Your task to perform on an android device: Open notification settings Image 0: 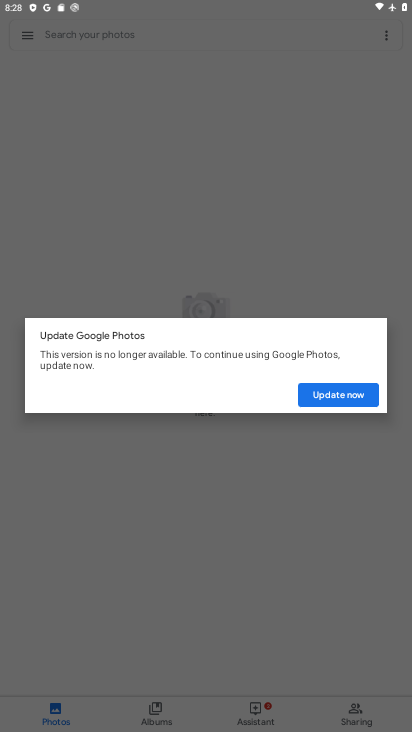
Step 0: press back button
Your task to perform on an android device: Open notification settings Image 1: 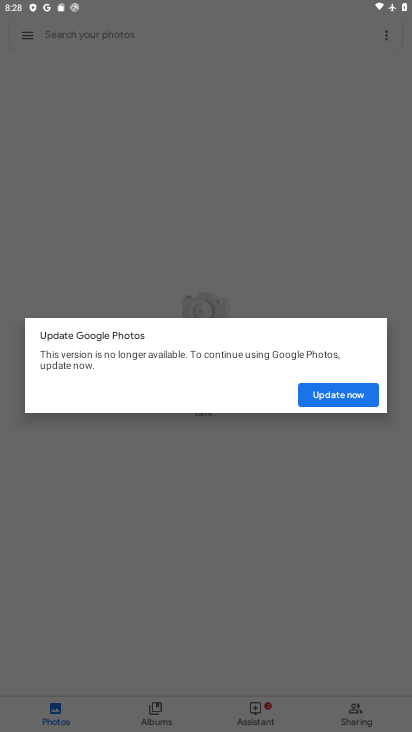
Step 1: press back button
Your task to perform on an android device: Open notification settings Image 2: 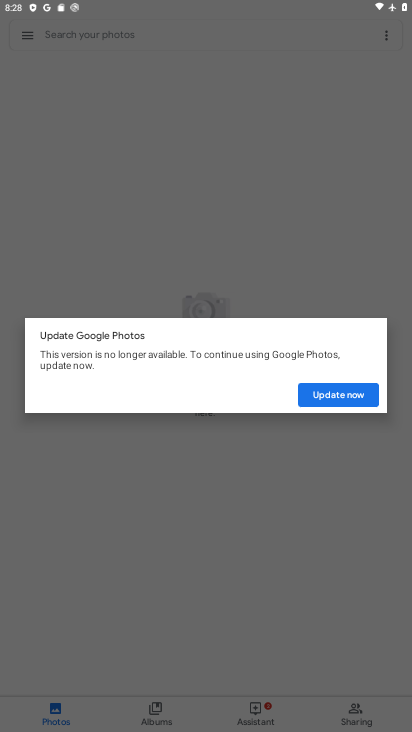
Step 2: press back button
Your task to perform on an android device: Open notification settings Image 3: 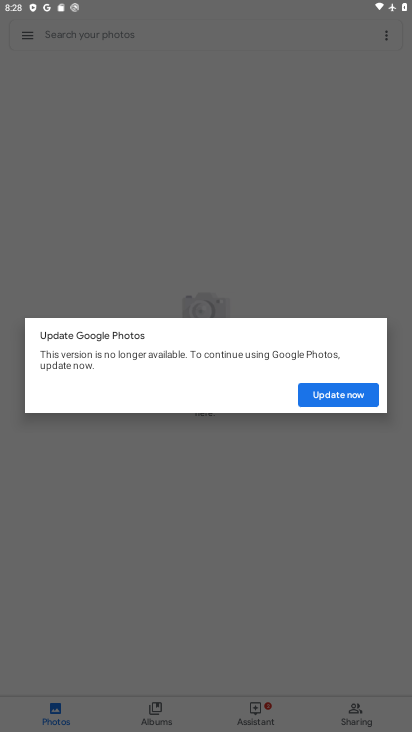
Step 3: click (113, 207)
Your task to perform on an android device: Open notification settings Image 4: 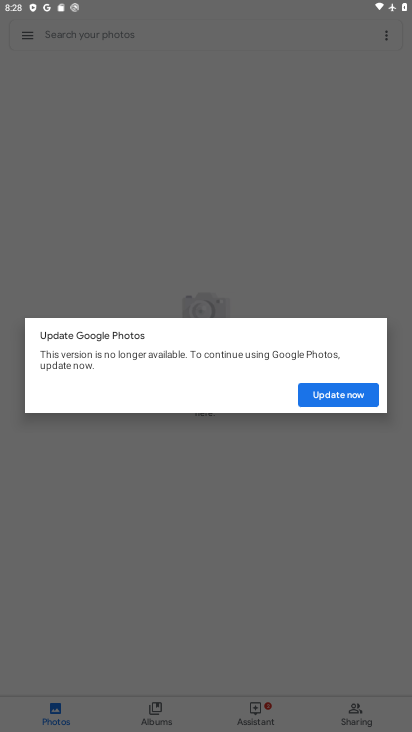
Step 4: click (115, 208)
Your task to perform on an android device: Open notification settings Image 5: 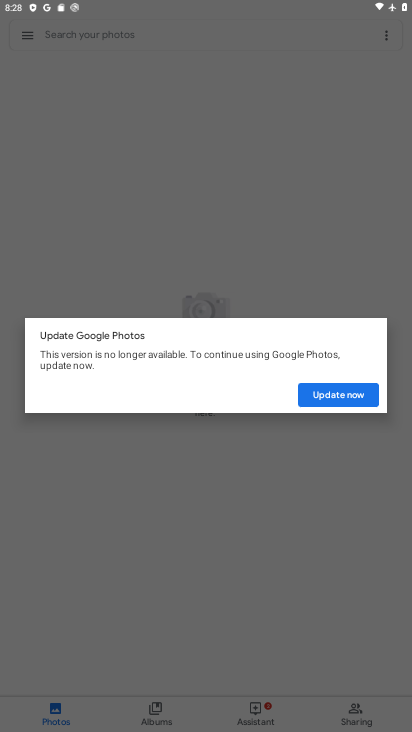
Step 5: click (125, 221)
Your task to perform on an android device: Open notification settings Image 6: 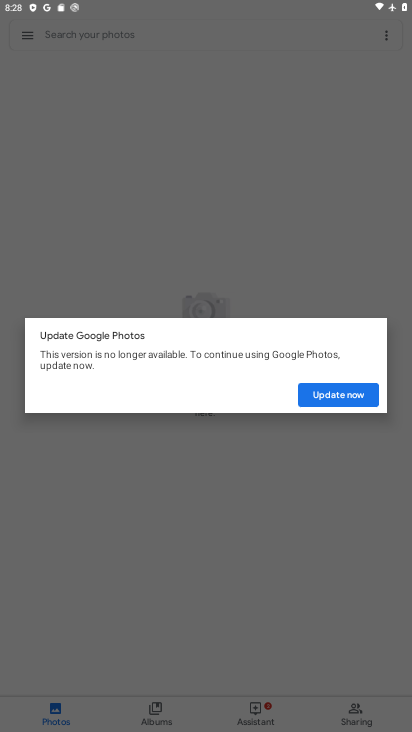
Step 6: click (131, 225)
Your task to perform on an android device: Open notification settings Image 7: 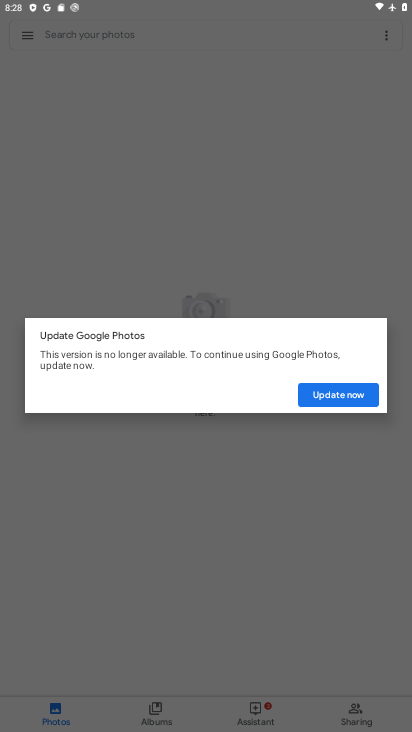
Step 7: press back button
Your task to perform on an android device: Open notification settings Image 8: 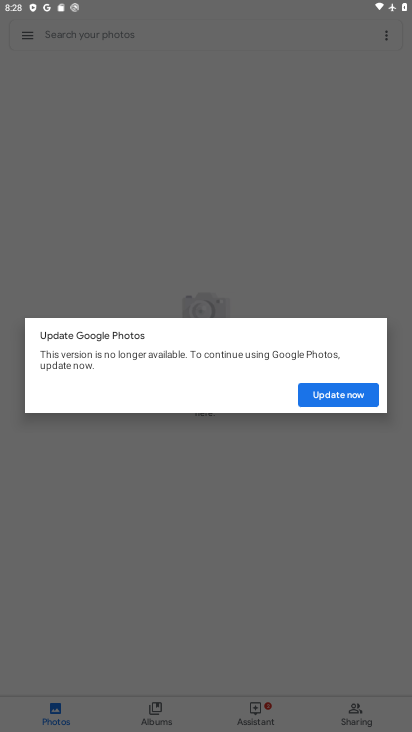
Step 8: press back button
Your task to perform on an android device: Open notification settings Image 9: 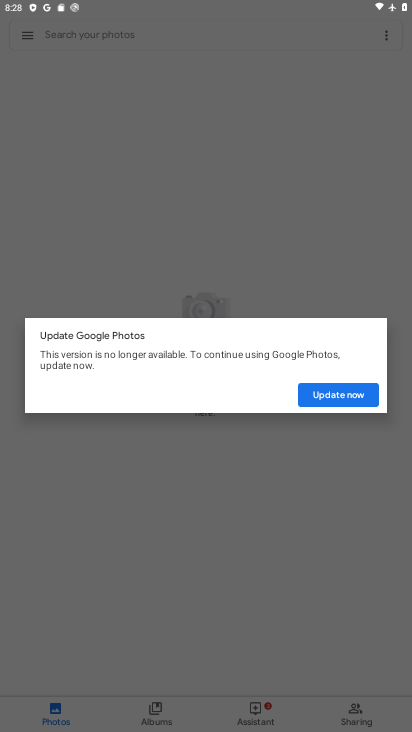
Step 9: press back button
Your task to perform on an android device: Open notification settings Image 10: 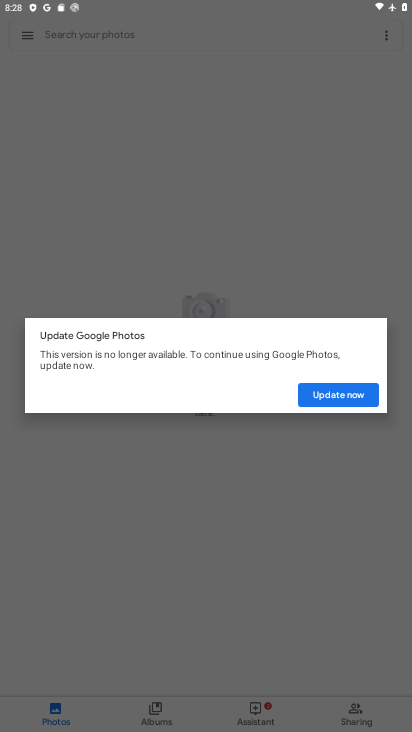
Step 10: click (106, 255)
Your task to perform on an android device: Open notification settings Image 11: 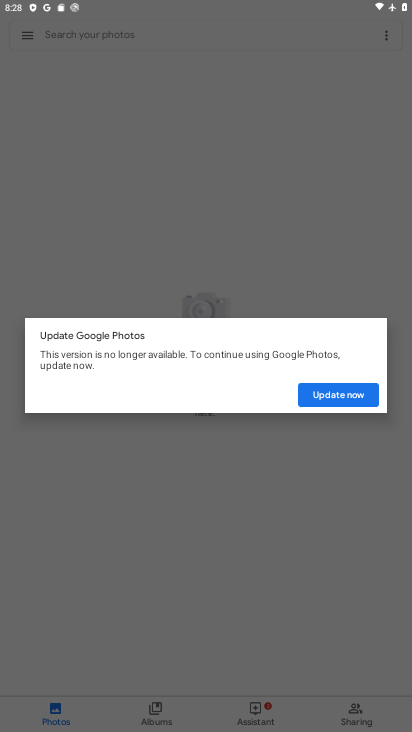
Step 11: click (205, 475)
Your task to perform on an android device: Open notification settings Image 12: 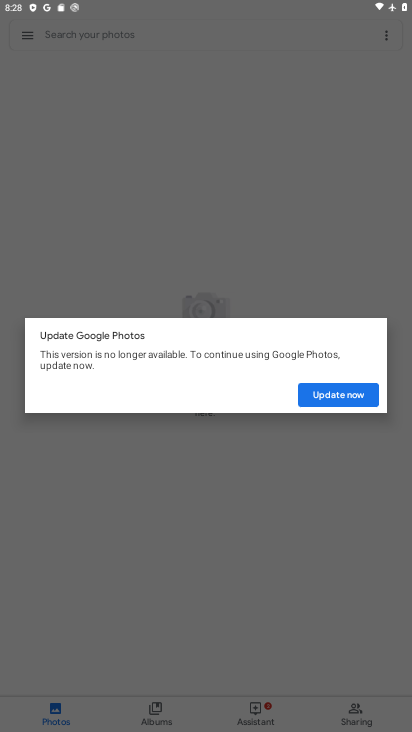
Step 12: click (209, 459)
Your task to perform on an android device: Open notification settings Image 13: 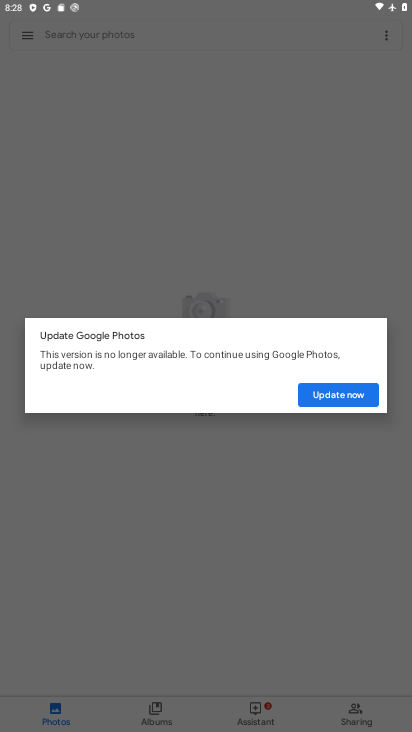
Step 13: press home button
Your task to perform on an android device: Open notification settings Image 14: 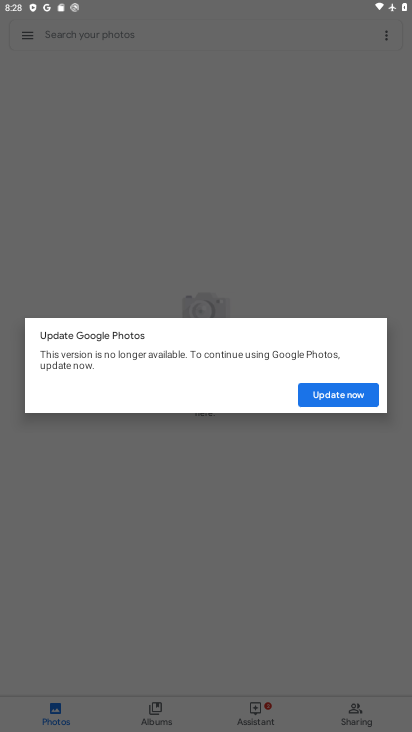
Step 14: press home button
Your task to perform on an android device: Open notification settings Image 15: 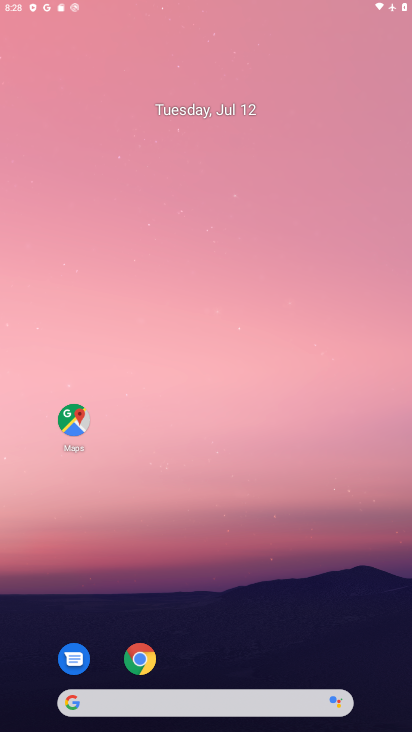
Step 15: press home button
Your task to perform on an android device: Open notification settings Image 16: 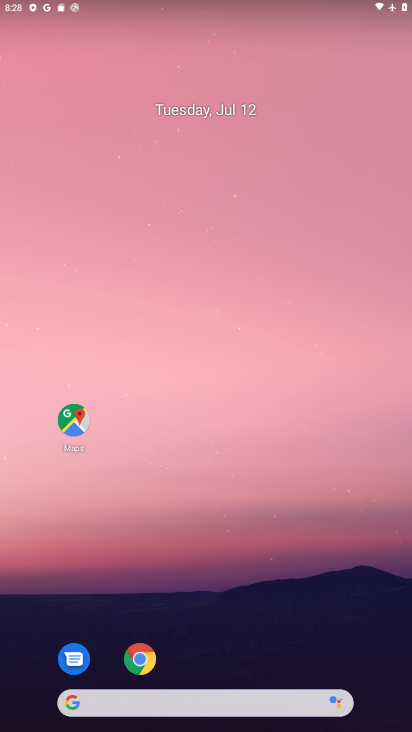
Step 16: press home button
Your task to perform on an android device: Open notification settings Image 17: 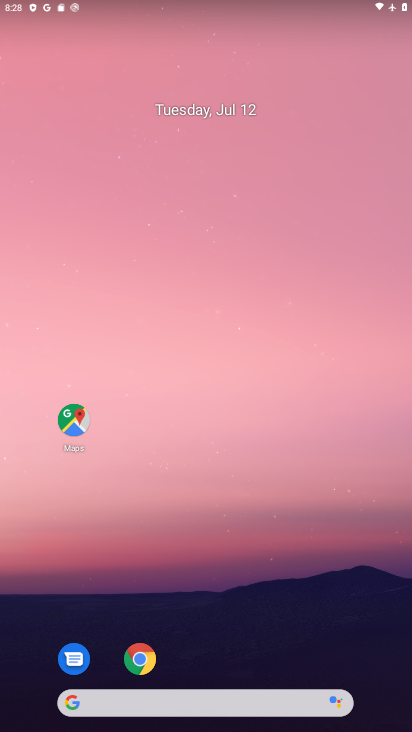
Step 17: drag from (195, 663) to (207, 33)
Your task to perform on an android device: Open notification settings Image 18: 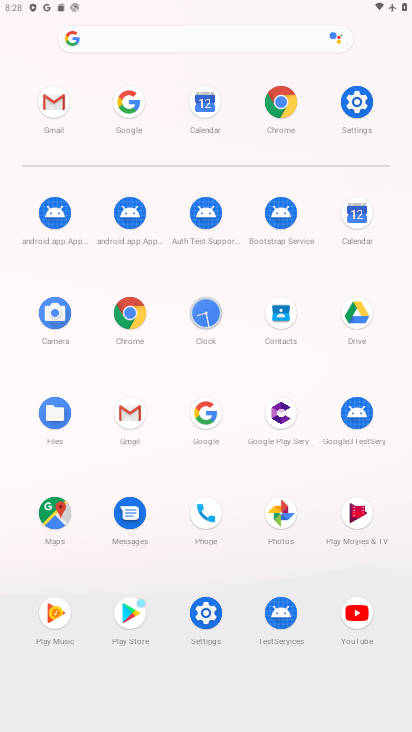
Step 18: click (197, 606)
Your task to perform on an android device: Open notification settings Image 19: 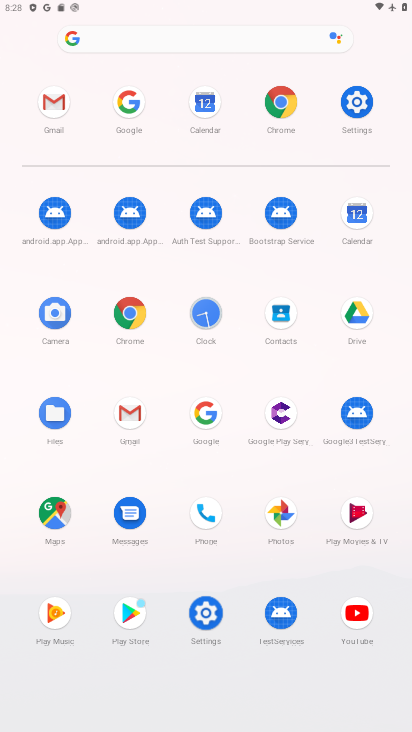
Step 19: click (218, 624)
Your task to perform on an android device: Open notification settings Image 20: 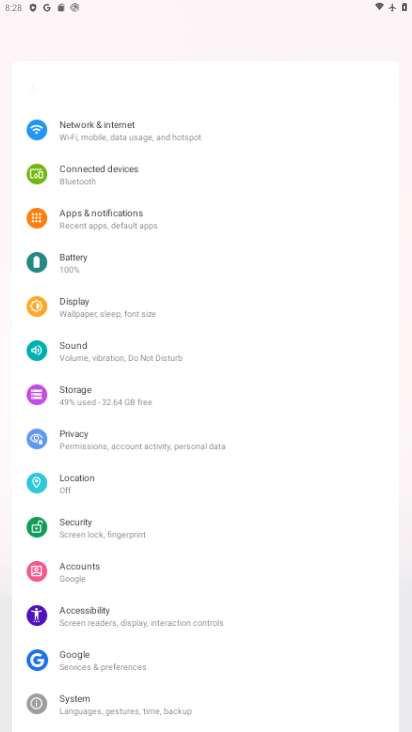
Step 20: click (215, 623)
Your task to perform on an android device: Open notification settings Image 21: 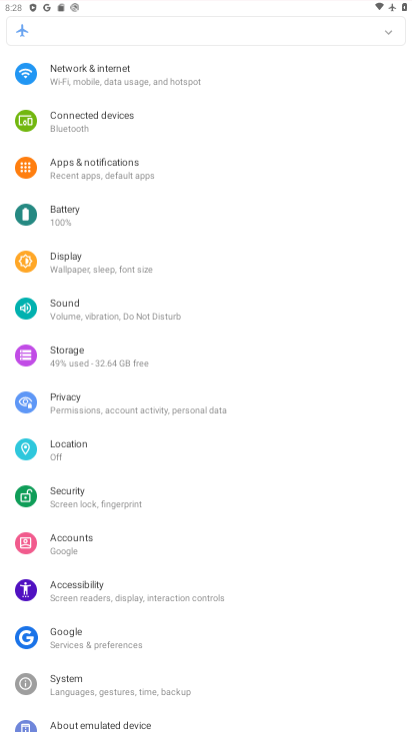
Step 21: click (216, 622)
Your task to perform on an android device: Open notification settings Image 22: 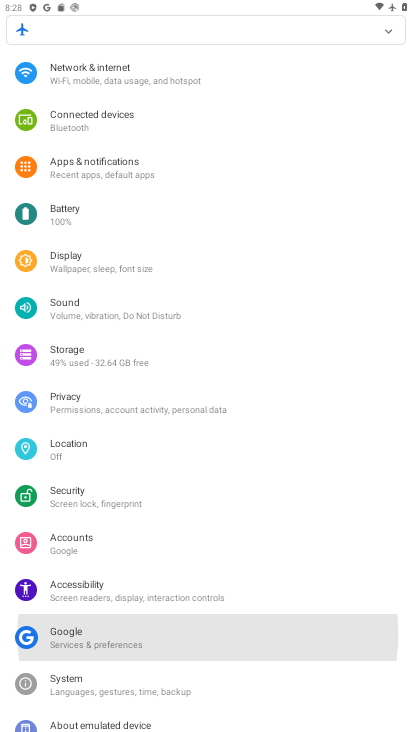
Step 22: click (217, 622)
Your task to perform on an android device: Open notification settings Image 23: 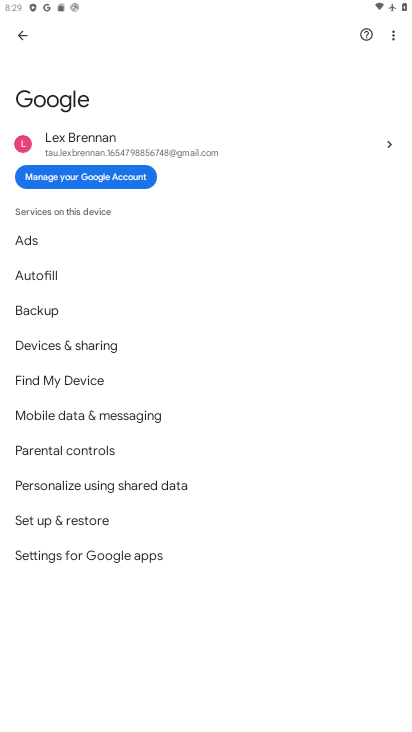
Step 23: click (15, 25)
Your task to perform on an android device: Open notification settings Image 24: 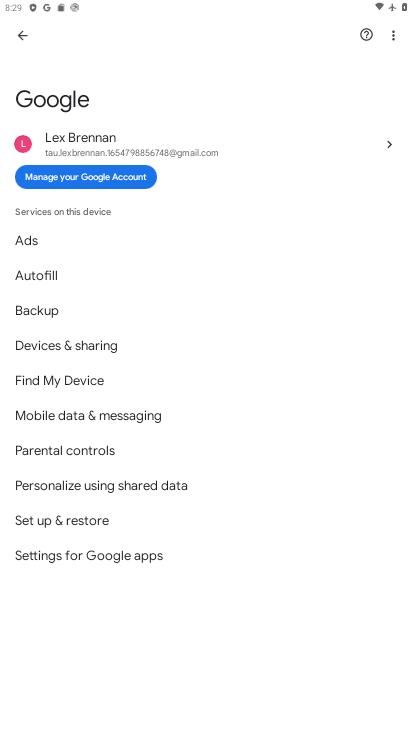
Step 24: click (20, 33)
Your task to perform on an android device: Open notification settings Image 25: 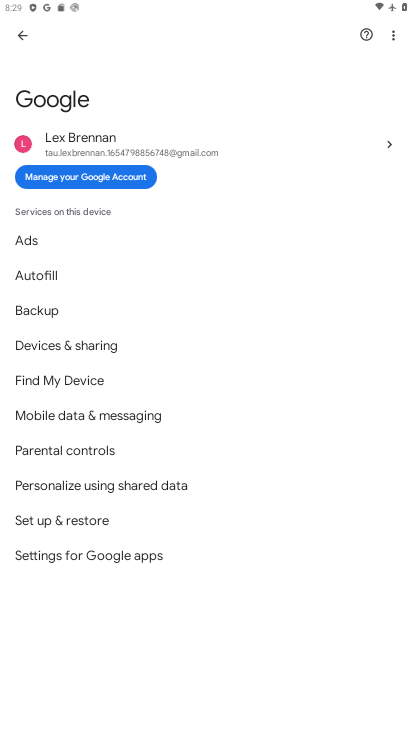
Step 25: click (26, 28)
Your task to perform on an android device: Open notification settings Image 26: 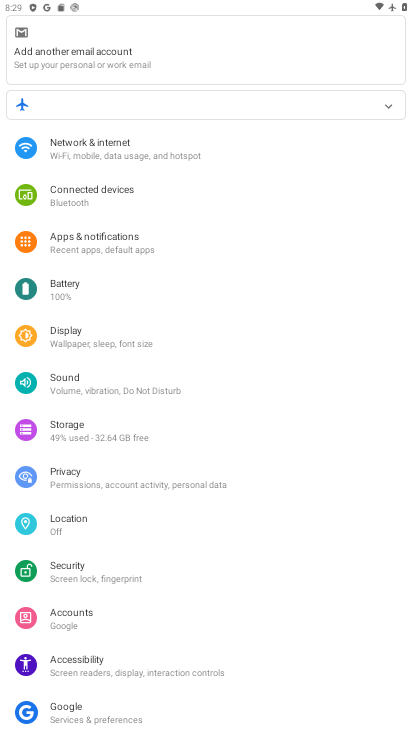
Step 26: click (86, 241)
Your task to perform on an android device: Open notification settings Image 27: 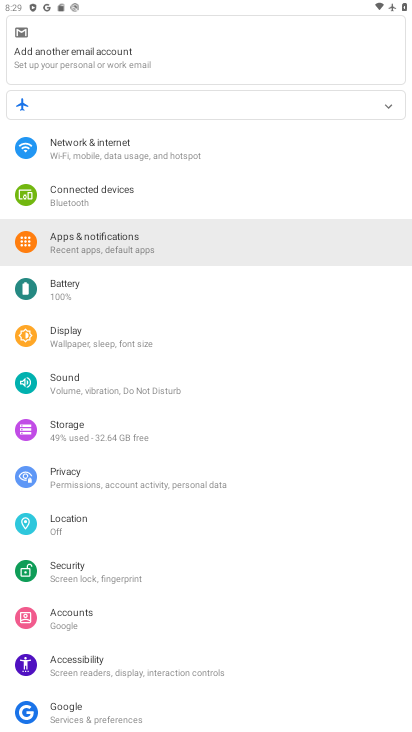
Step 27: click (86, 242)
Your task to perform on an android device: Open notification settings Image 28: 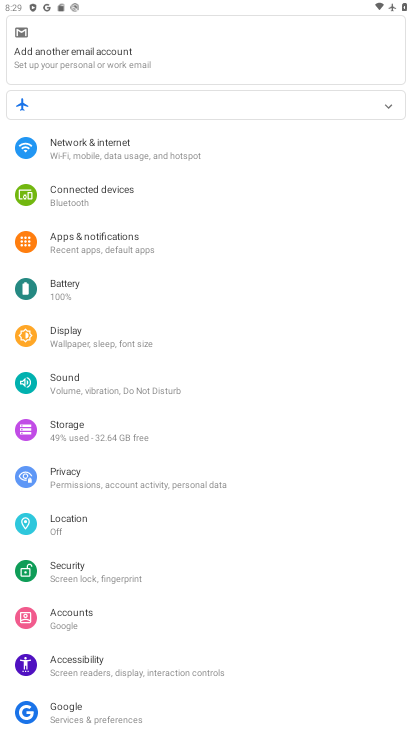
Step 28: click (86, 242)
Your task to perform on an android device: Open notification settings Image 29: 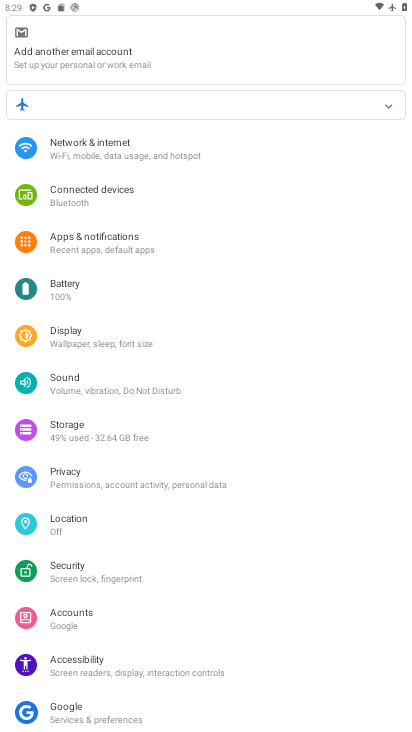
Step 29: click (86, 242)
Your task to perform on an android device: Open notification settings Image 30: 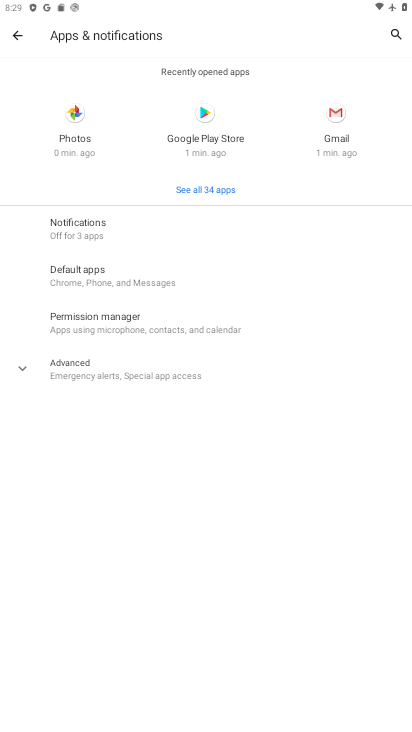
Step 30: click (58, 230)
Your task to perform on an android device: Open notification settings Image 31: 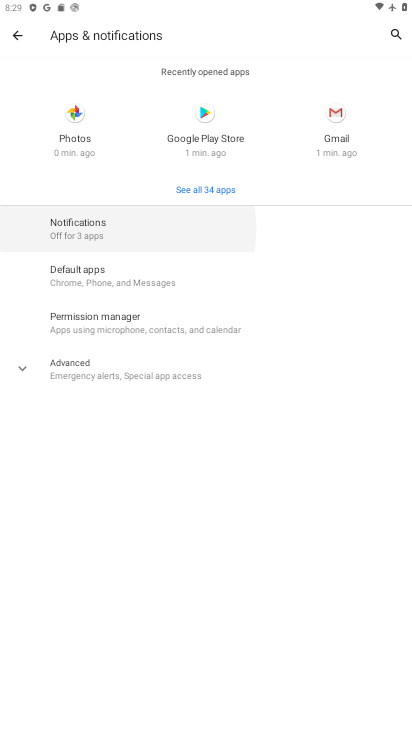
Step 31: click (58, 230)
Your task to perform on an android device: Open notification settings Image 32: 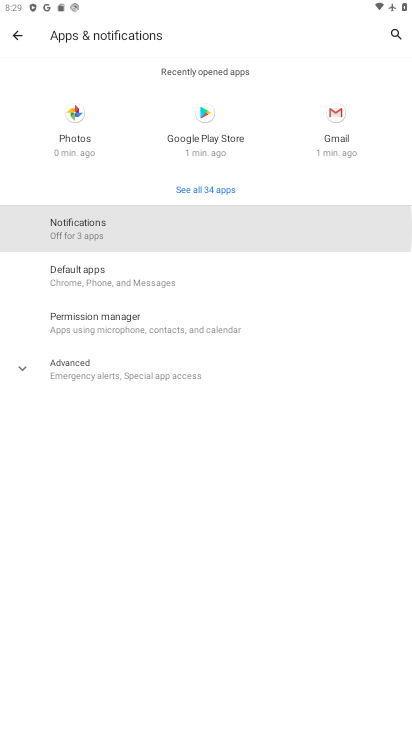
Step 32: click (58, 230)
Your task to perform on an android device: Open notification settings Image 33: 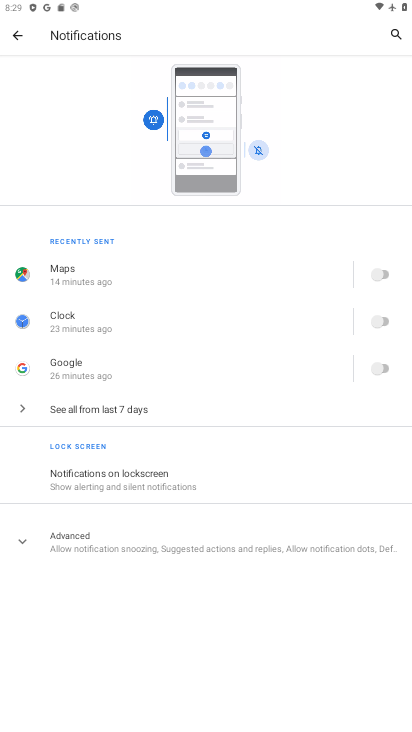
Step 33: click (105, 478)
Your task to perform on an android device: Open notification settings Image 34: 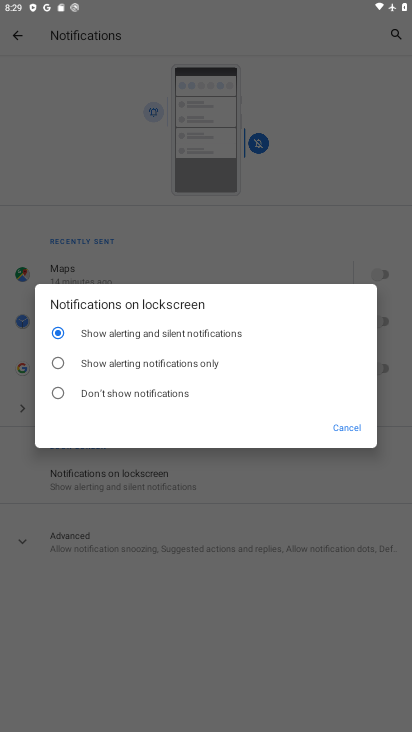
Step 34: task complete